Your task to perform on an android device: Open network settings Image 0: 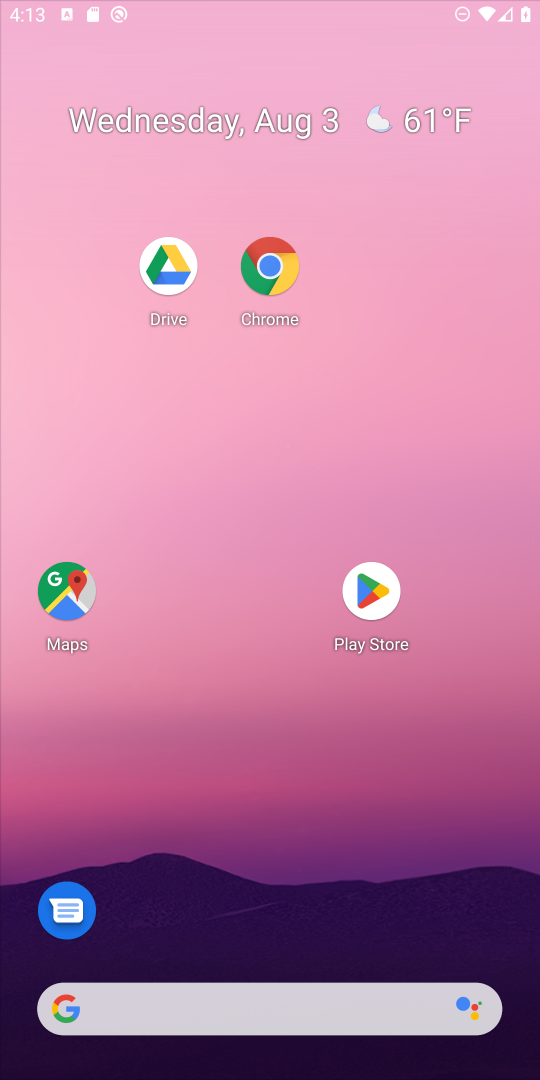
Step 0: press home button
Your task to perform on an android device: Open network settings Image 1: 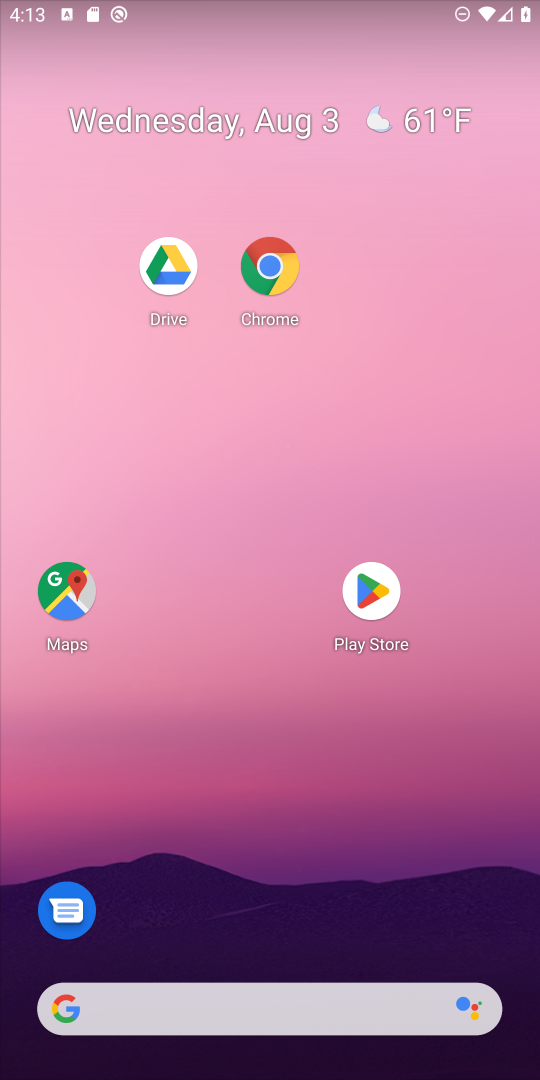
Step 1: drag from (372, 1016) to (413, 10)
Your task to perform on an android device: Open network settings Image 2: 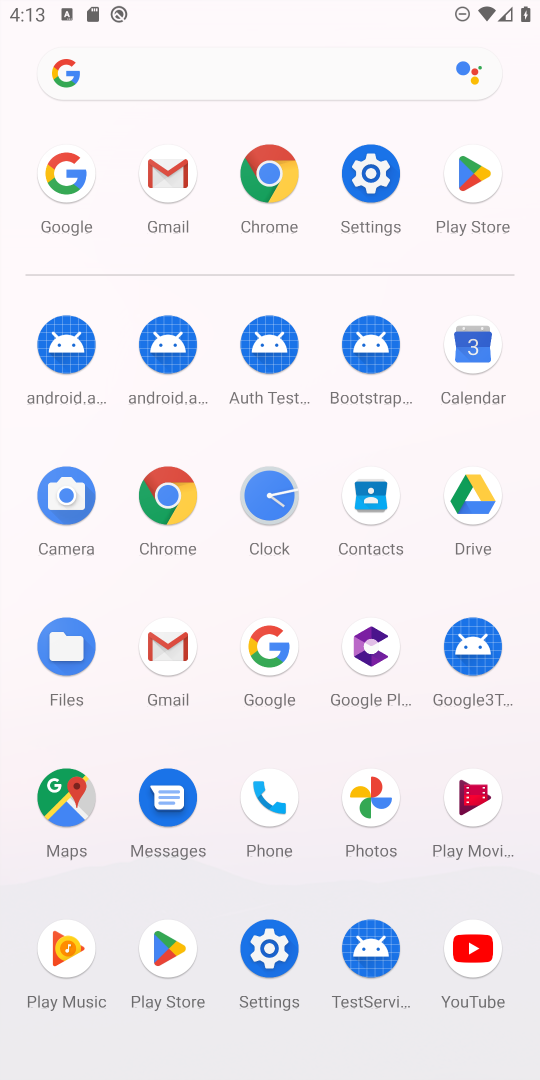
Step 2: click (368, 179)
Your task to perform on an android device: Open network settings Image 3: 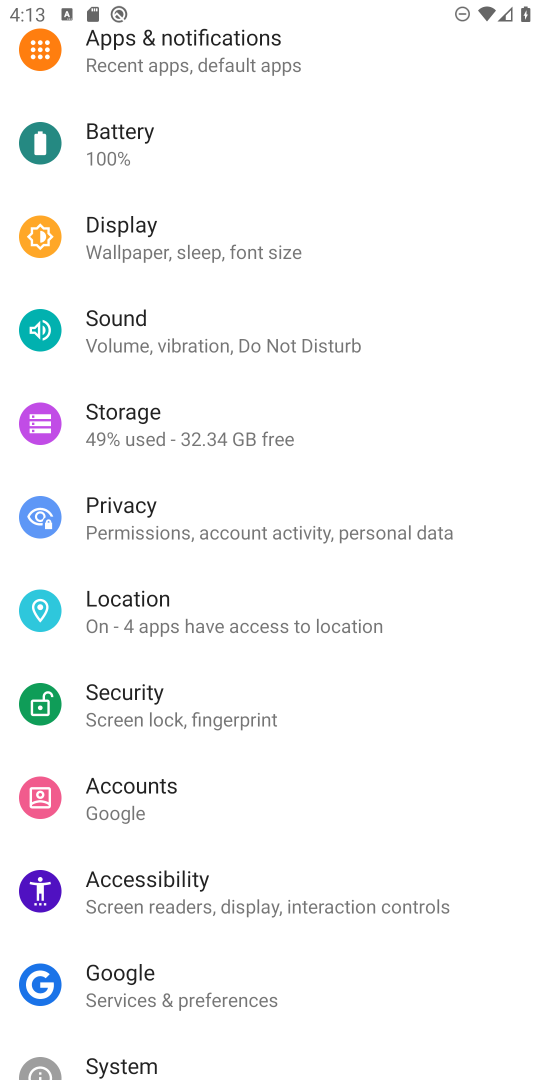
Step 3: drag from (284, 138) to (278, 1019)
Your task to perform on an android device: Open network settings Image 4: 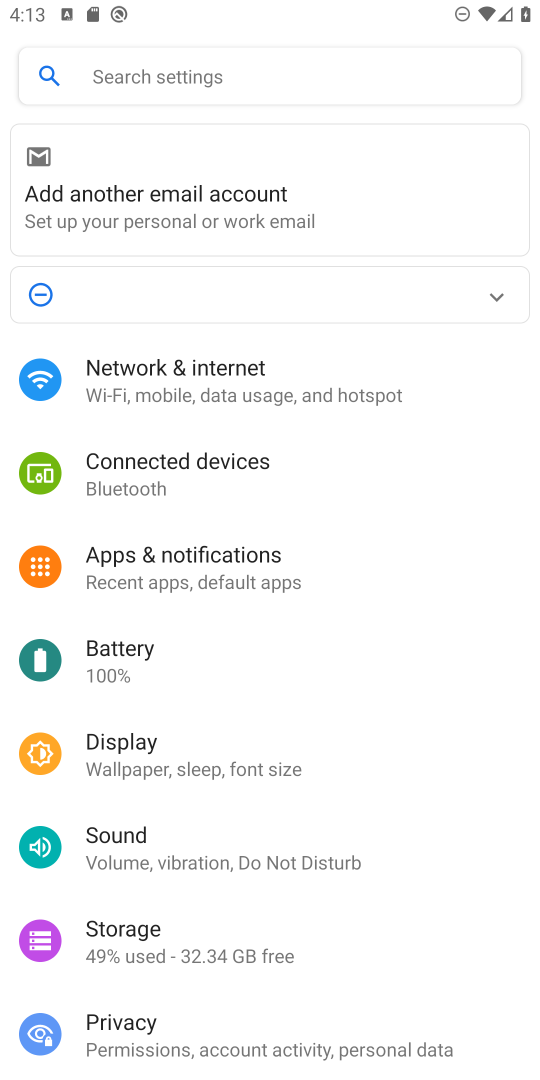
Step 4: click (240, 379)
Your task to perform on an android device: Open network settings Image 5: 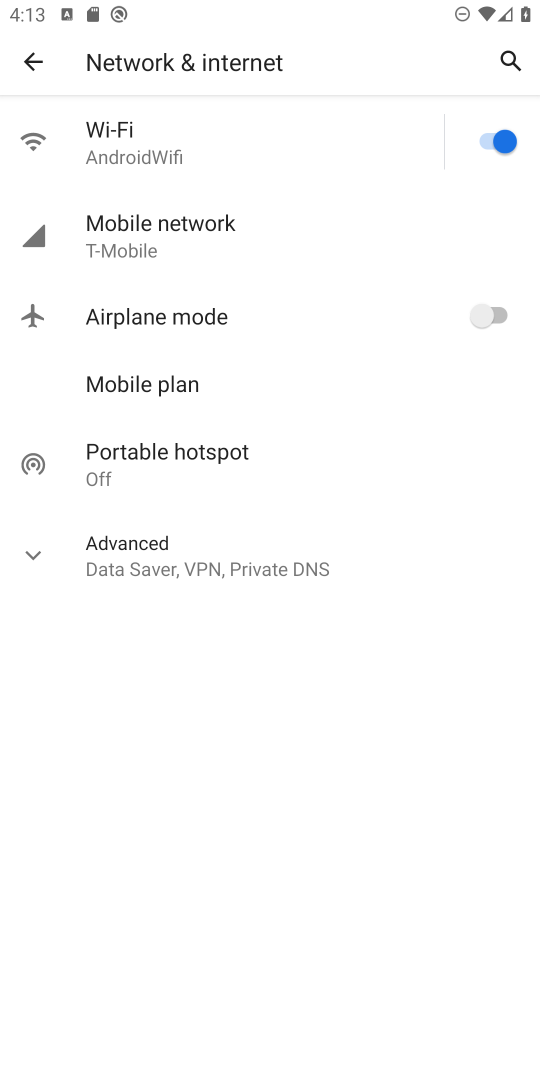
Step 5: task complete